Your task to perform on an android device: open chrome and create a bookmark for the current page Image 0: 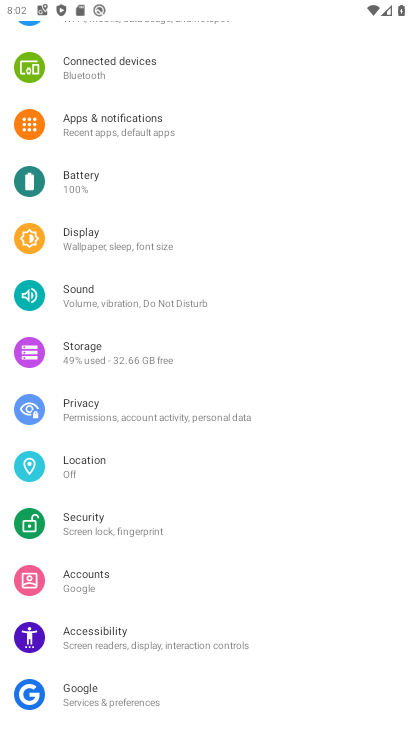
Step 0: press home button
Your task to perform on an android device: open chrome and create a bookmark for the current page Image 1: 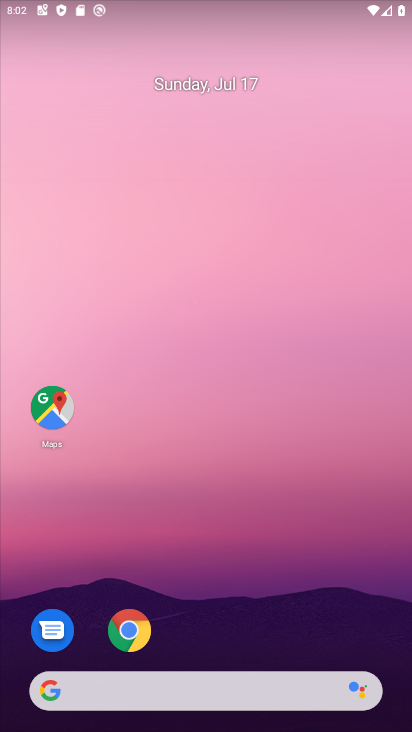
Step 1: click (134, 620)
Your task to perform on an android device: open chrome and create a bookmark for the current page Image 2: 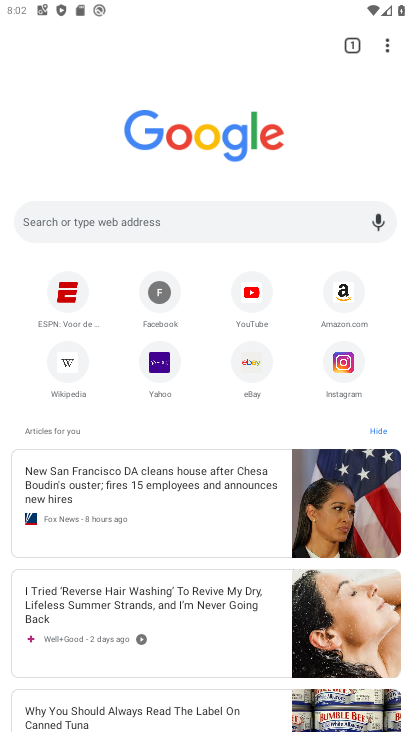
Step 2: click (388, 35)
Your task to perform on an android device: open chrome and create a bookmark for the current page Image 3: 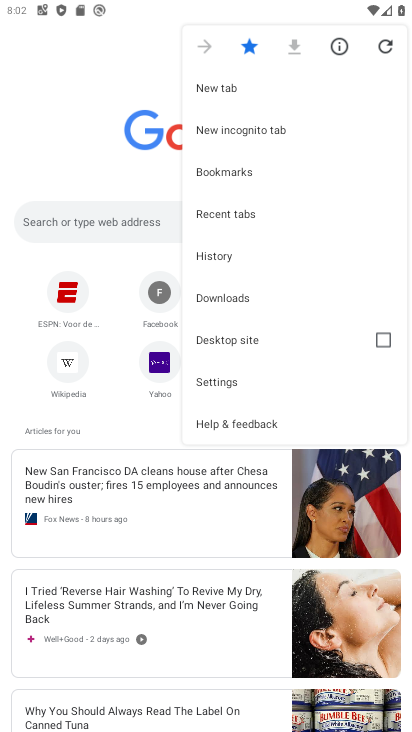
Step 3: task complete